Your task to perform on an android device: Search for seafood restaurants on Google Maps Image 0: 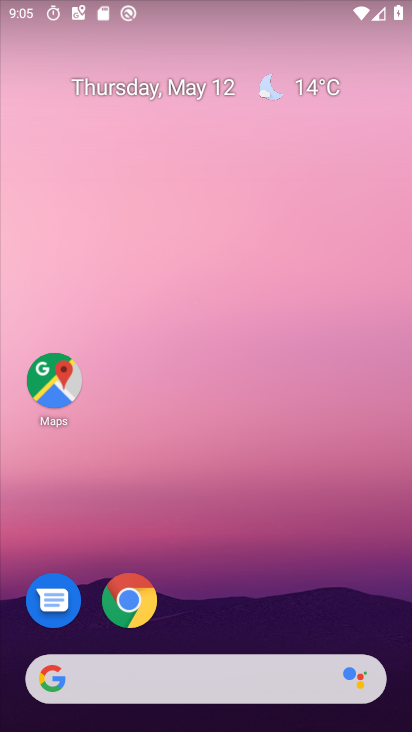
Step 0: drag from (244, 598) to (158, 26)
Your task to perform on an android device: Search for seafood restaurants on Google Maps Image 1: 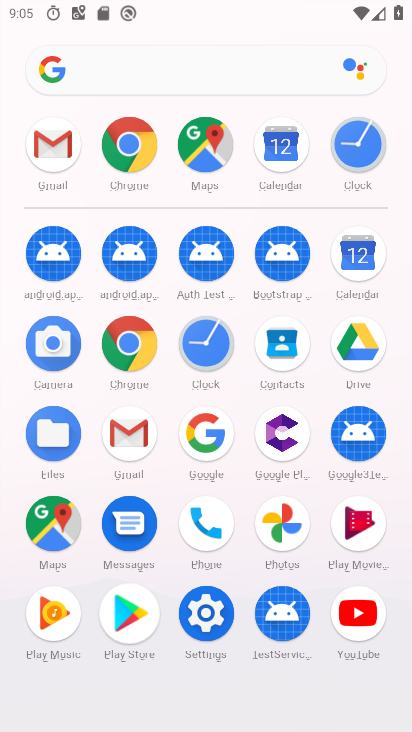
Step 1: click (211, 80)
Your task to perform on an android device: Search for seafood restaurants on Google Maps Image 2: 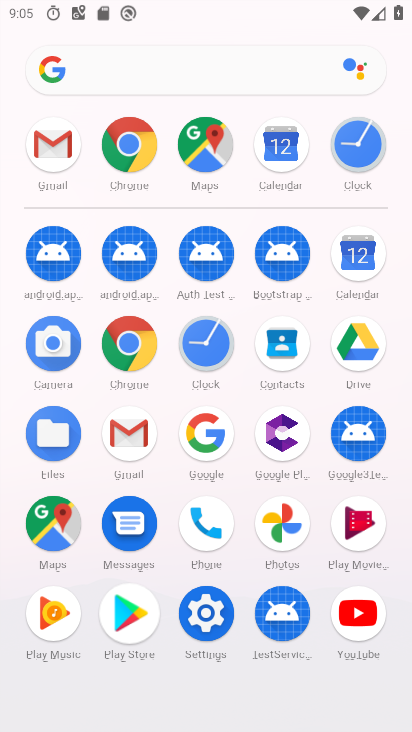
Step 2: drag from (161, 41) to (273, 64)
Your task to perform on an android device: Search for seafood restaurants on Google Maps Image 3: 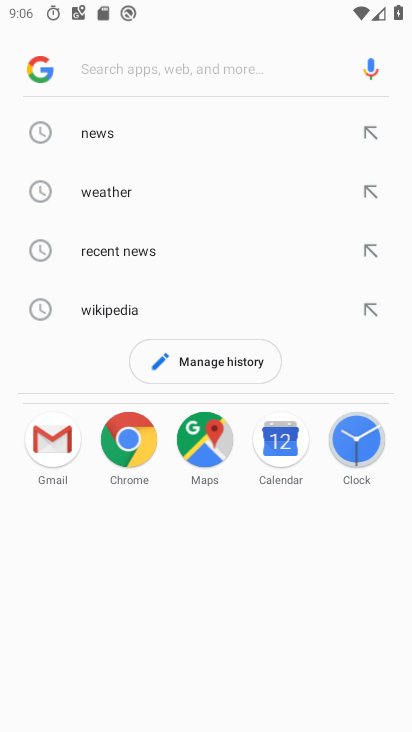
Step 3: press back button
Your task to perform on an android device: Search for seafood restaurants on Google Maps Image 4: 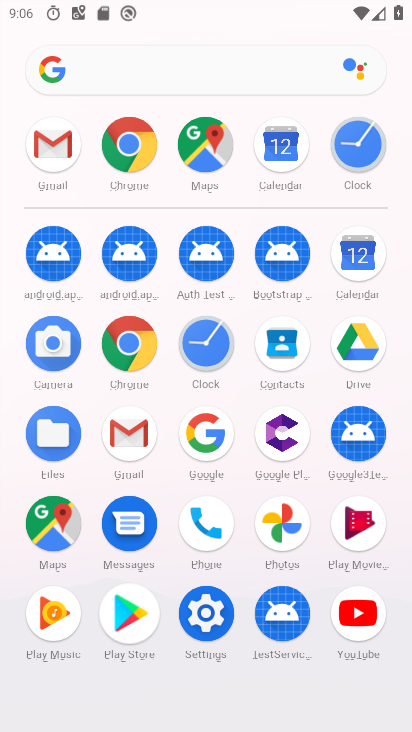
Step 4: press back button
Your task to perform on an android device: Search for seafood restaurants on Google Maps Image 5: 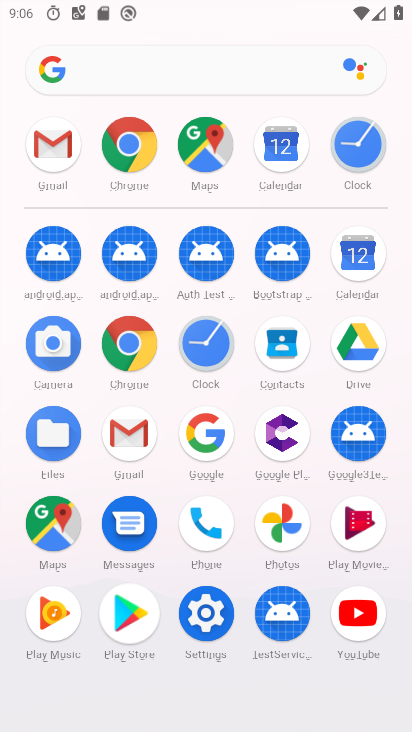
Step 5: press back button
Your task to perform on an android device: Search for seafood restaurants on Google Maps Image 6: 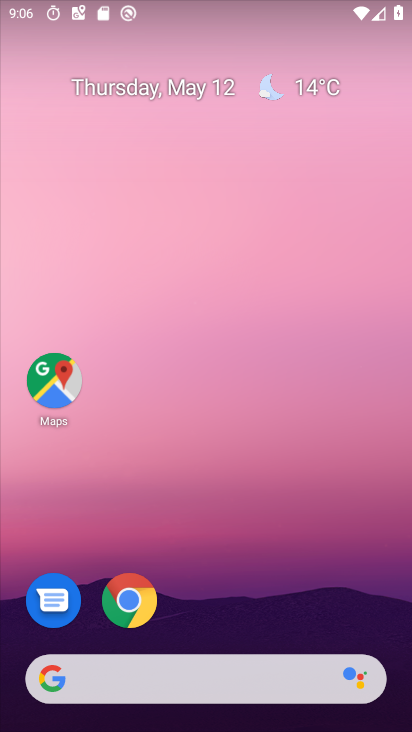
Step 6: drag from (216, 562) to (138, 33)
Your task to perform on an android device: Search for seafood restaurants on Google Maps Image 7: 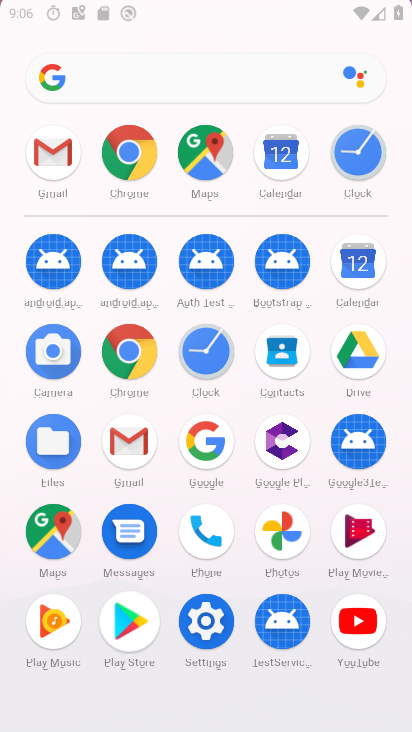
Step 7: drag from (275, 406) to (256, 31)
Your task to perform on an android device: Search for seafood restaurants on Google Maps Image 8: 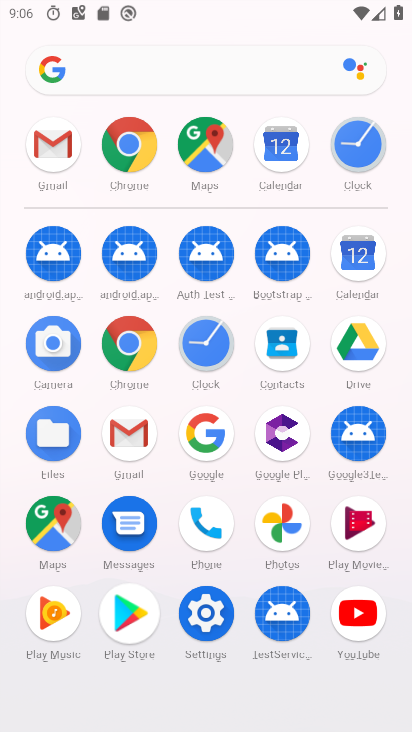
Step 8: click (54, 515)
Your task to perform on an android device: Search for seafood restaurants on Google Maps Image 9: 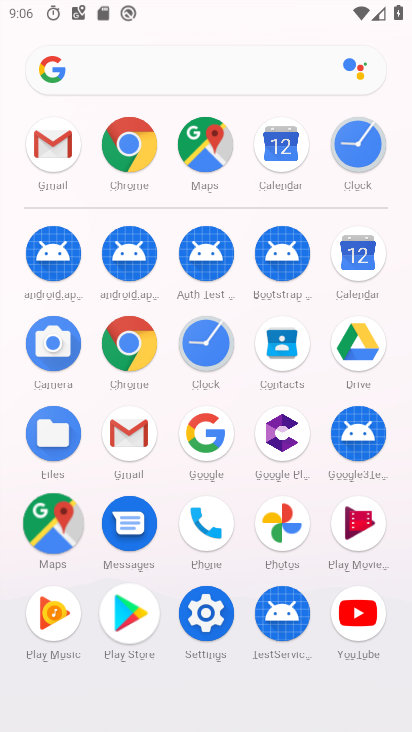
Step 9: click (54, 515)
Your task to perform on an android device: Search for seafood restaurants on Google Maps Image 10: 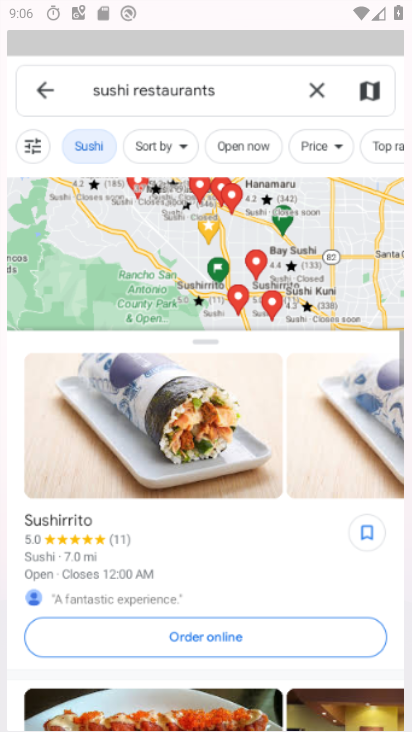
Step 10: click (54, 520)
Your task to perform on an android device: Search for seafood restaurants on Google Maps Image 11: 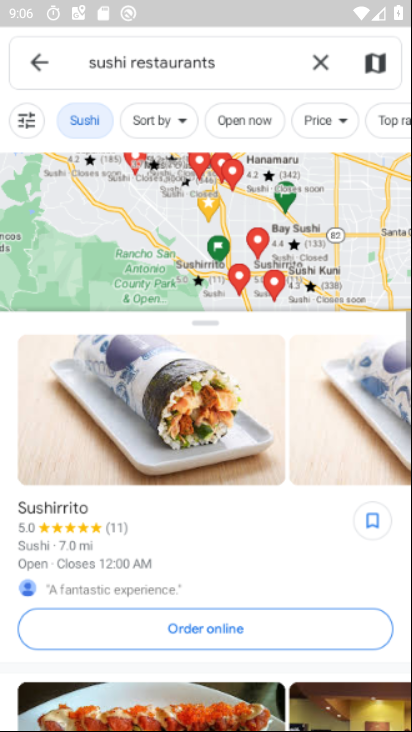
Step 11: click (54, 526)
Your task to perform on an android device: Search for seafood restaurants on Google Maps Image 12: 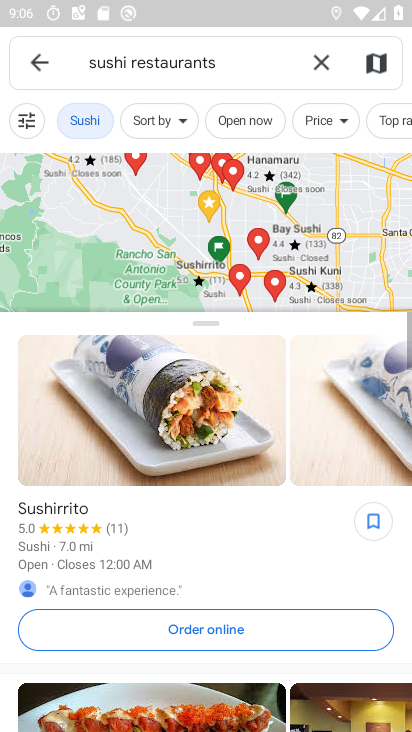
Step 12: drag from (243, 66) to (324, 62)
Your task to perform on an android device: Search for seafood restaurants on Google Maps Image 13: 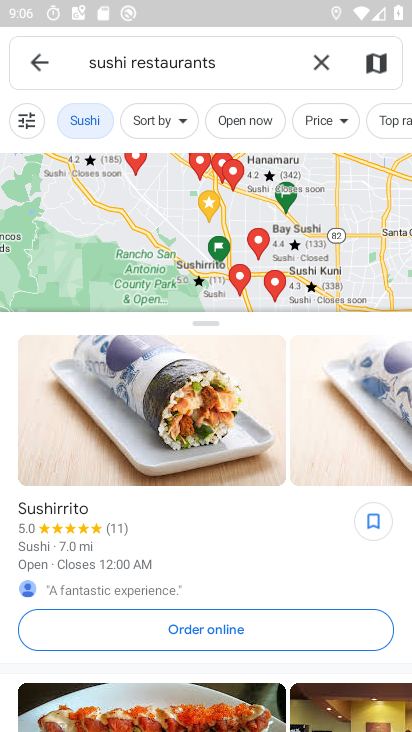
Step 13: click (317, 55)
Your task to perform on an android device: Search for seafood restaurants on Google Maps Image 14: 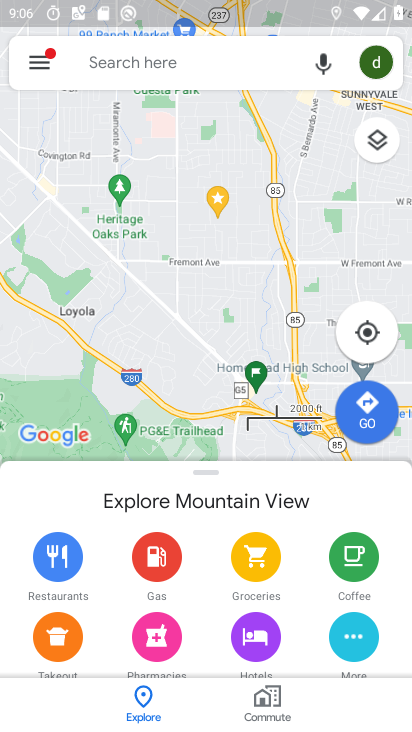
Step 14: click (321, 65)
Your task to perform on an android device: Search for seafood restaurants on Google Maps Image 15: 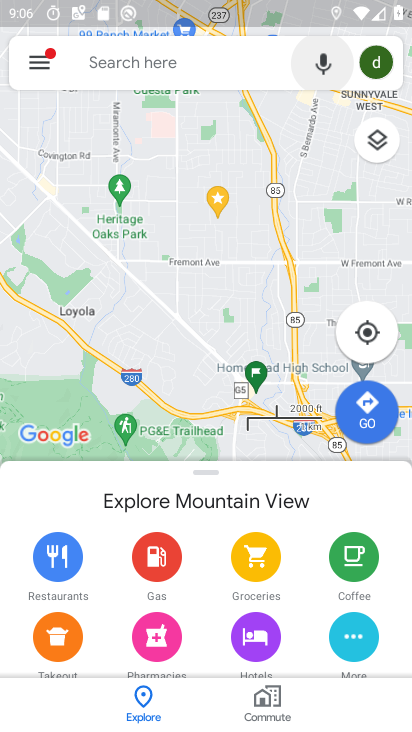
Step 15: click (142, 53)
Your task to perform on an android device: Search for seafood restaurants on Google Maps Image 16: 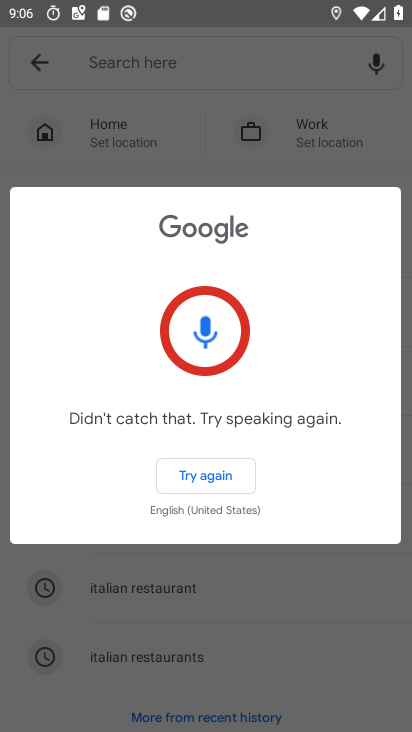
Step 16: type "seafood restaurants"
Your task to perform on an android device: Search for seafood restaurants on Google Maps Image 17: 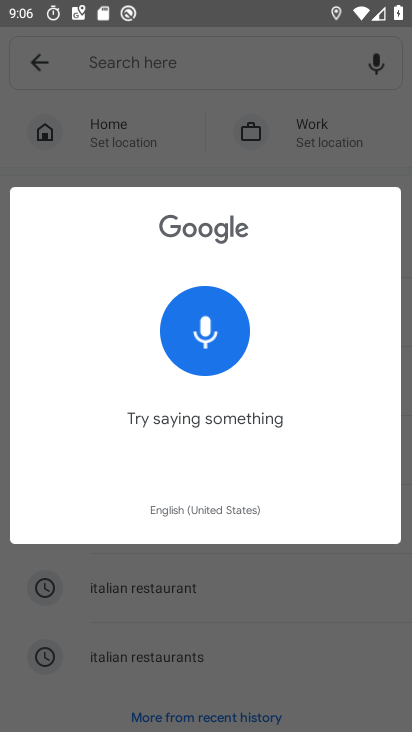
Step 17: click (286, 391)
Your task to perform on an android device: Search for seafood restaurants on Google Maps Image 18: 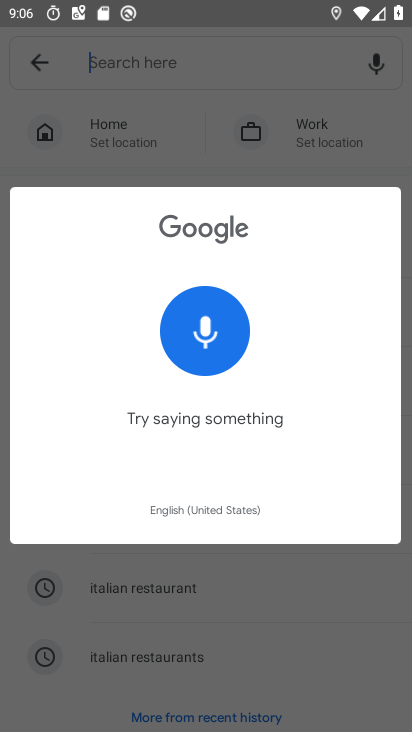
Step 18: click (254, 153)
Your task to perform on an android device: Search for seafood restaurants on Google Maps Image 19: 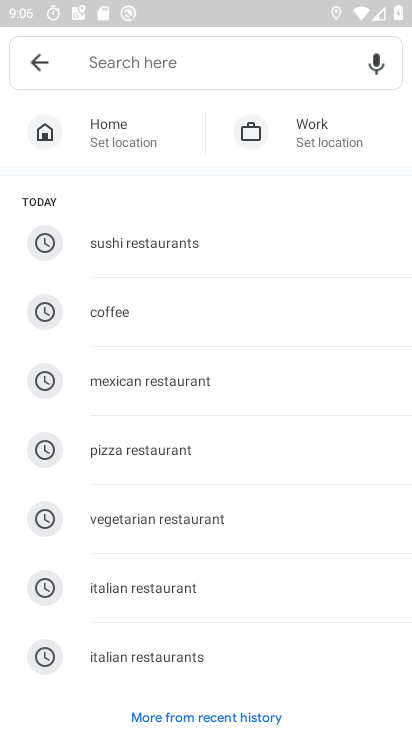
Step 19: task complete